Your task to perform on an android device: toggle notifications settings in the gmail app Image 0: 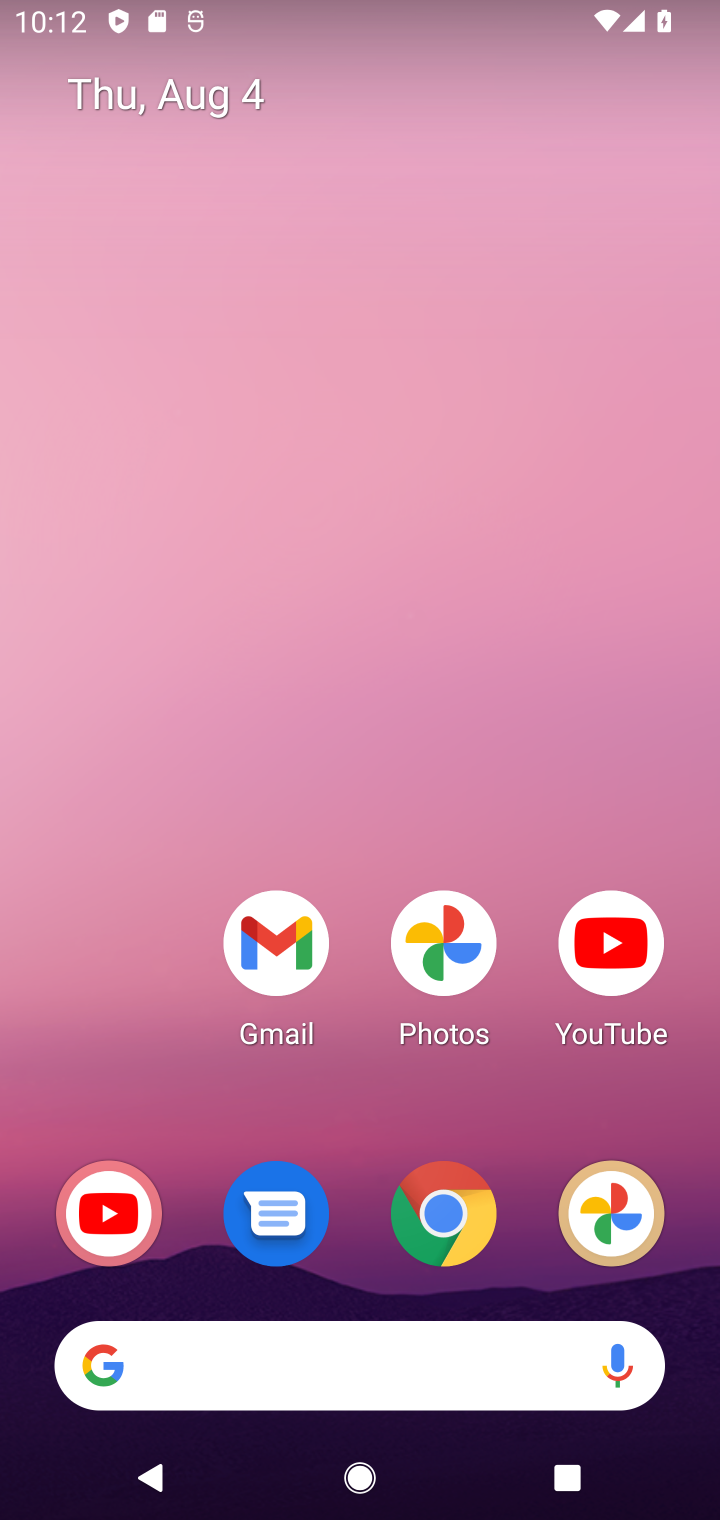
Step 0: click (265, 947)
Your task to perform on an android device: toggle notifications settings in the gmail app Image 1: 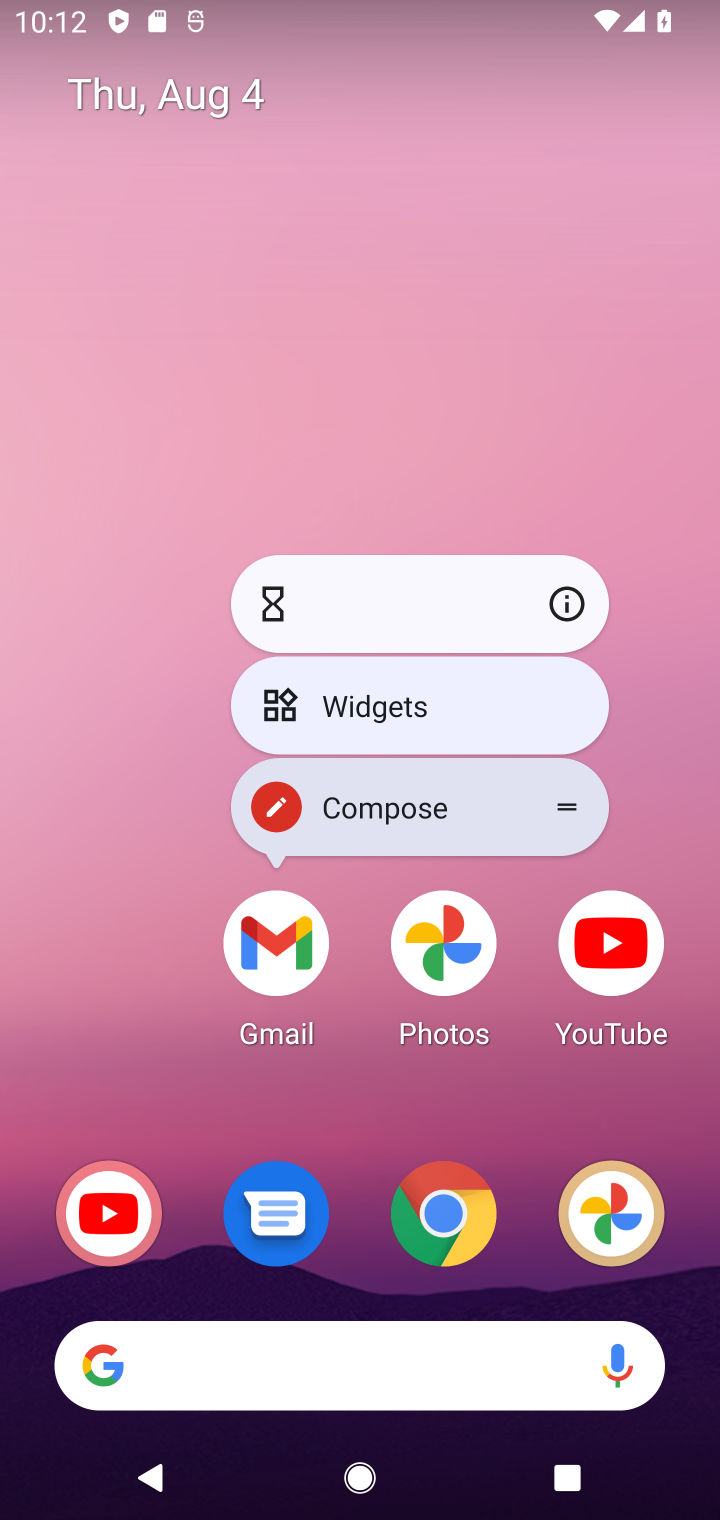
Step 1: click (559, 611)
Your task to perform on an android device: toggle notifications settings in the gmail app Image 2: 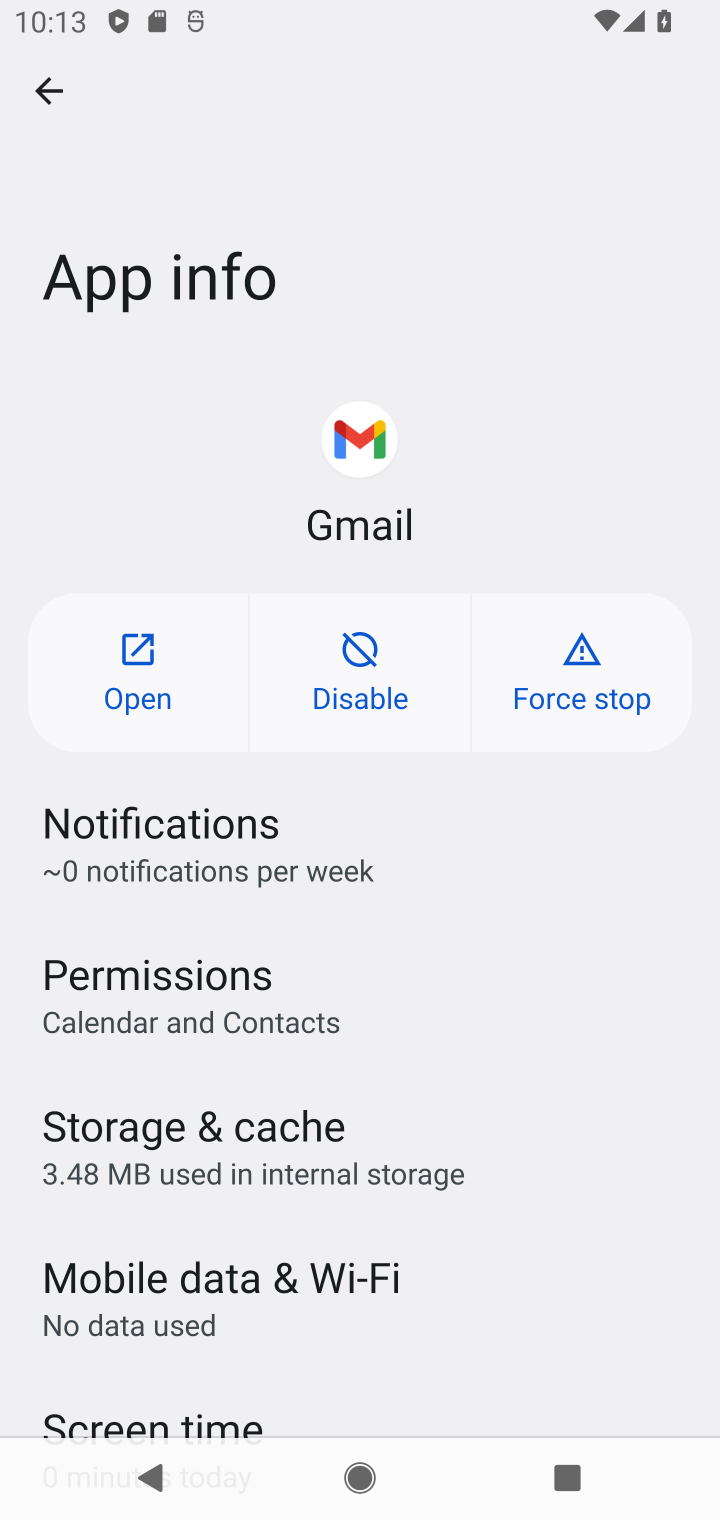
Step 2: click (291, 870)
Your task to perform on an android device: toggle notifications settings in the gmail app Image 3: 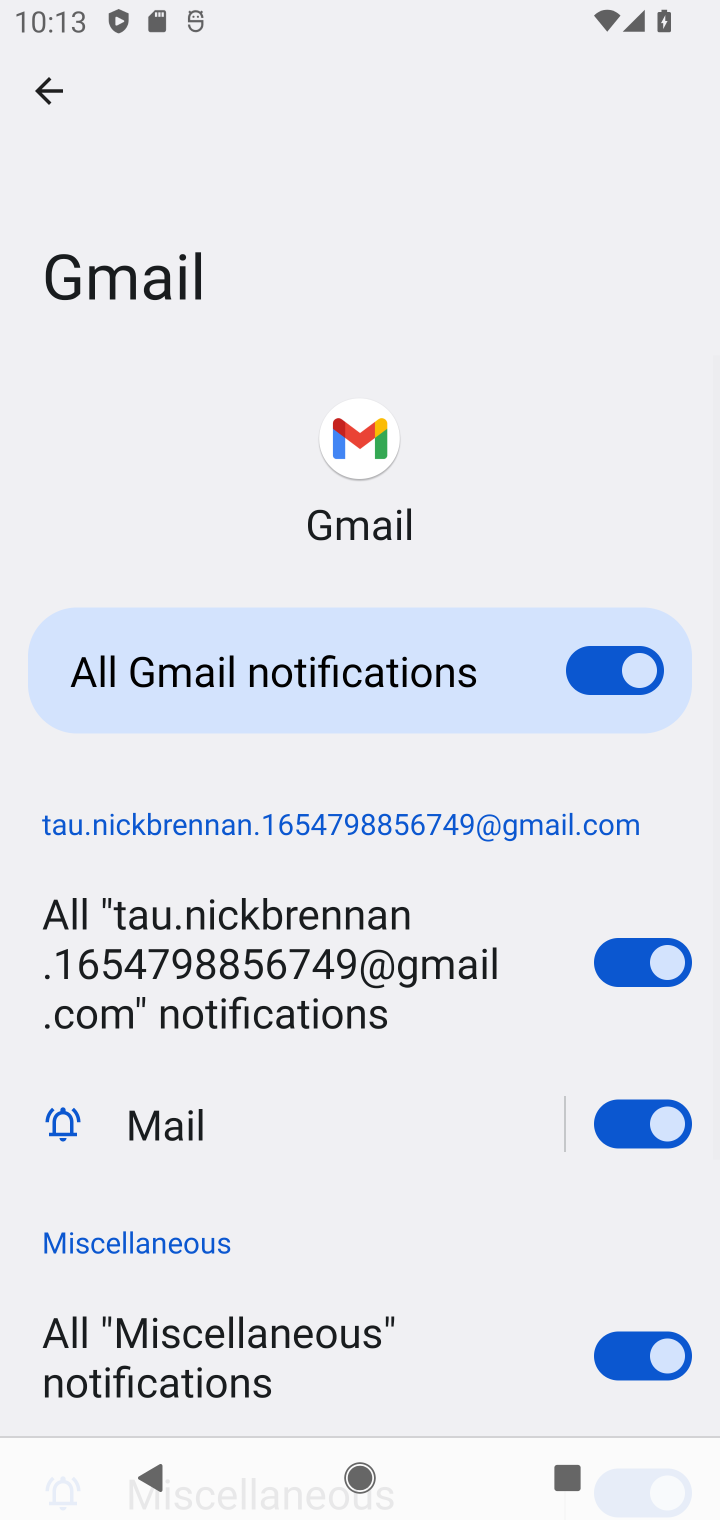
Step 3: click (612, 647)
Your task to perform on an android device: toggle notifications settings in the gmail app Image 4: 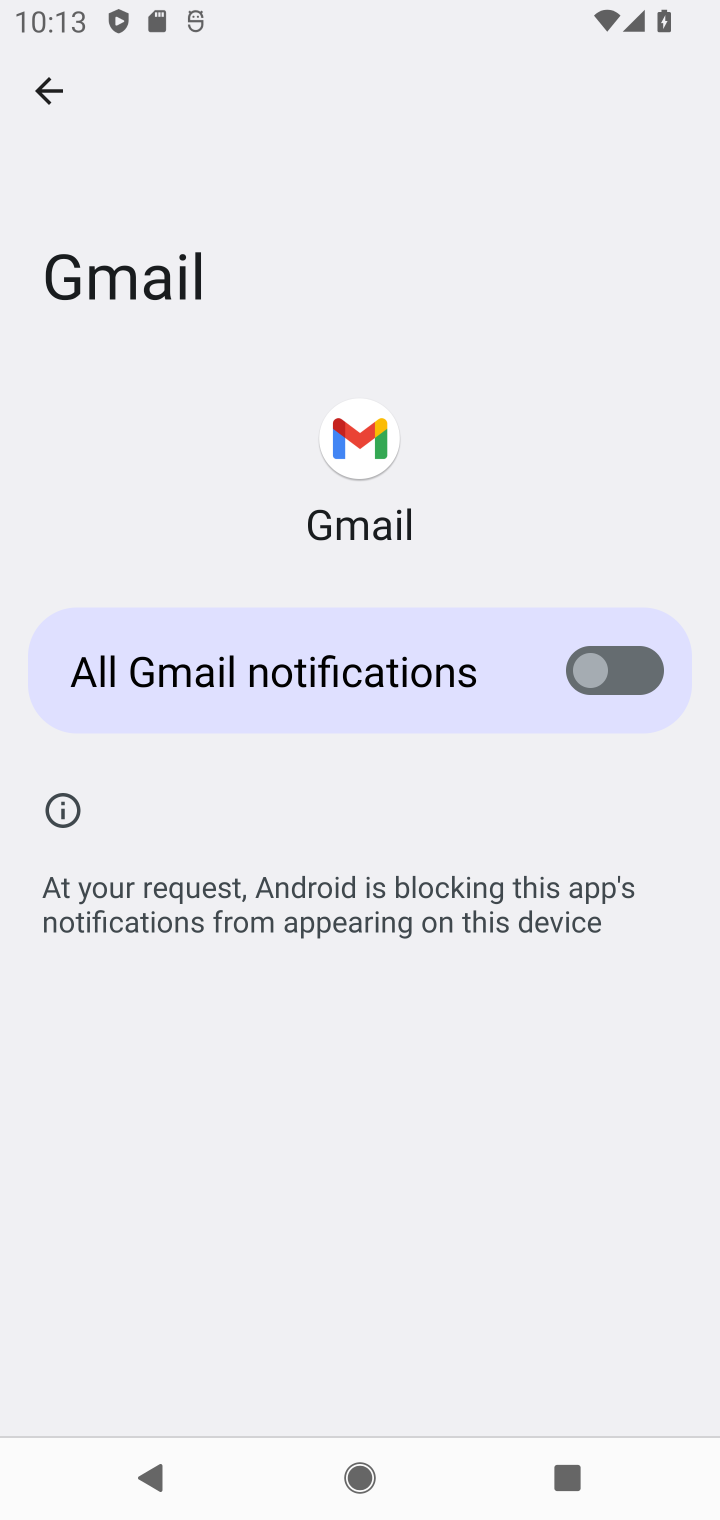
Step 4: task complete